Your task to perform on an android device: delete browsing data in the chrome app Image 0: 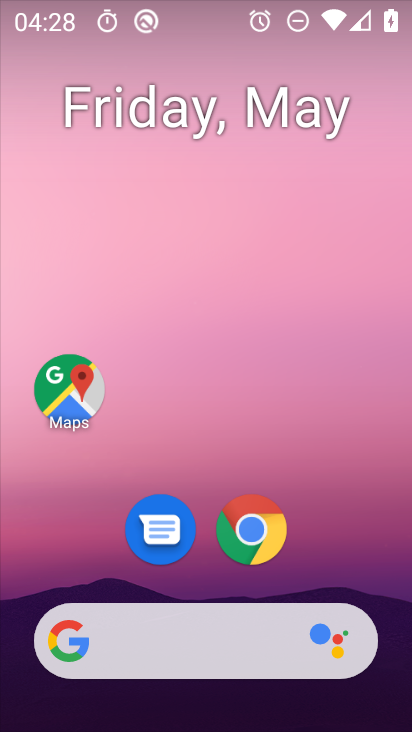
Step 0: click (242, 528)
Your task to perform on an android device: delete browsing data in the chrome app Image 1: 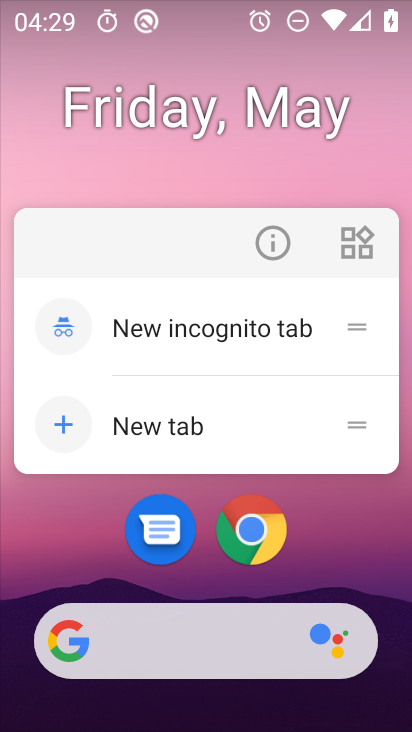
Step 1: click (257, 525)
Your task to perform on an android device: delete browsing data in the chrome app Image 2: 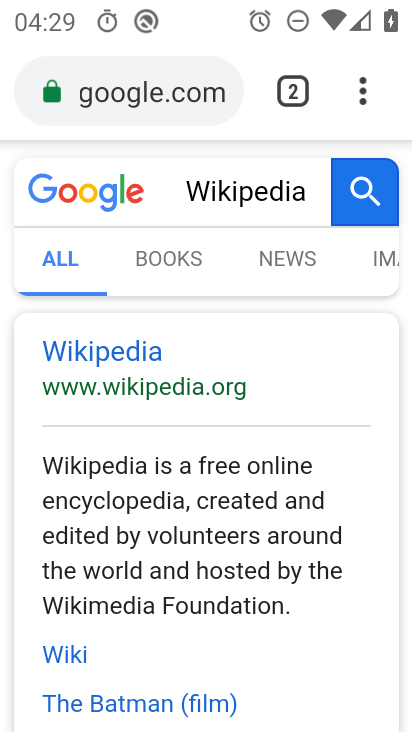
Step 2: click (364, 85)
Your task to perform on an android device: delete browsing data in the chrome app Image 3: 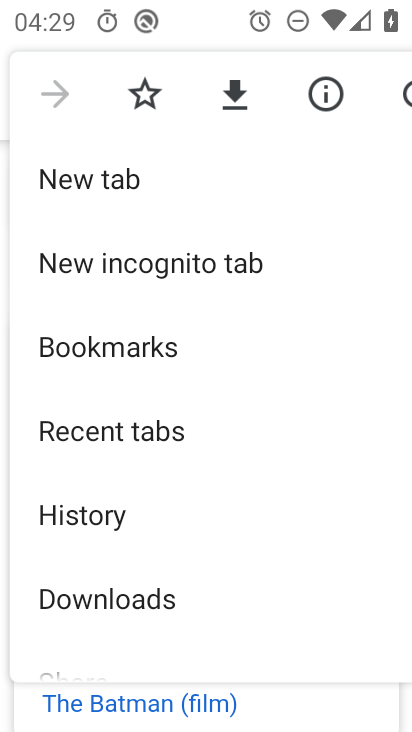
Step 3: drag from (254, 602) to (267, 367)
Your task to perform on an android device: delete browsing data in the chrome app Image 4: 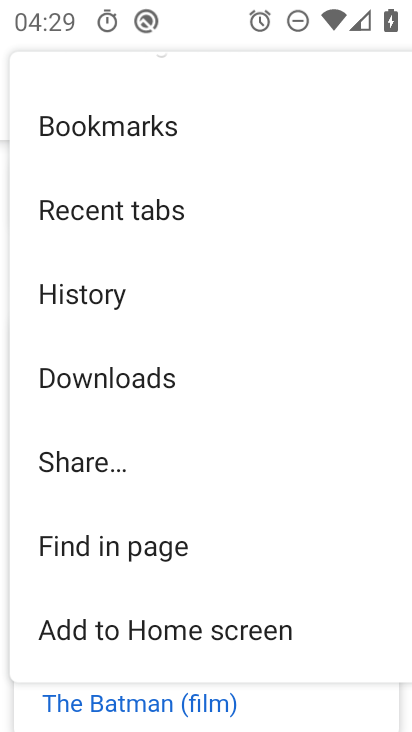
Step 4: click (83, 289)
Your task to perform on an android device: delete browsing data in the chrome app Image 5: 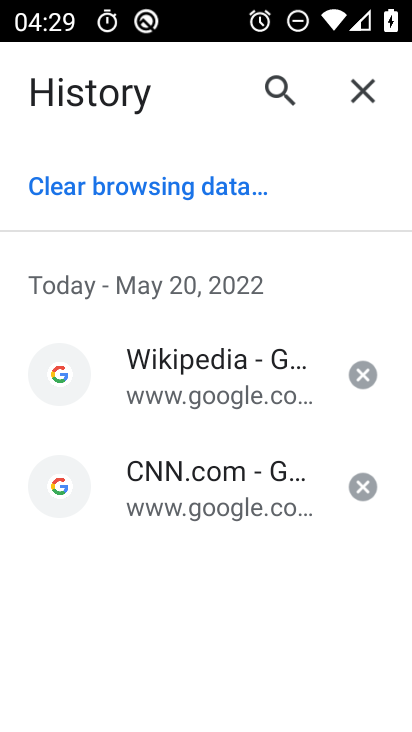
Step 5: click (172, 179)
Your task to perform on an android device: delete browsing data in the chrome app Image 6: 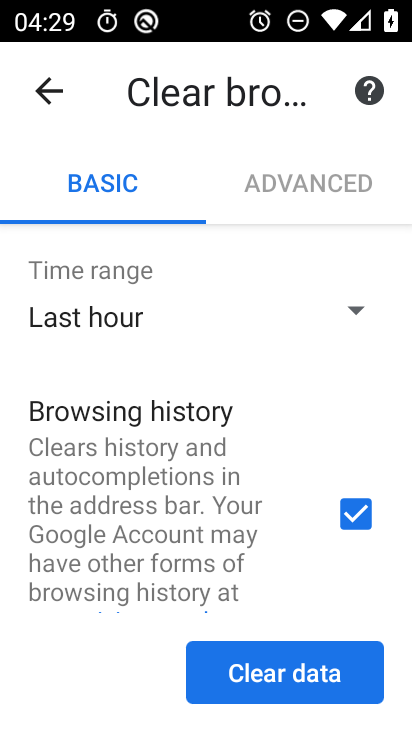
Step 6: click (276, 672)
Your task to perform on an android device: delete browsing data in the chrome app Image 7: 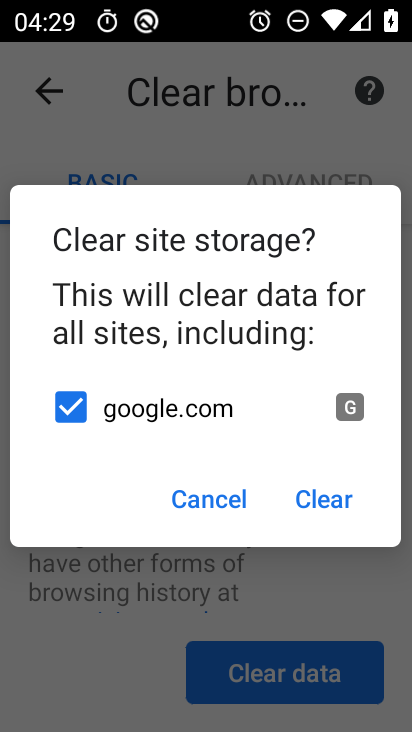
Step 7: click (327, 491)
Your task to perform on an android device: delete browsing data in the chrome app Image 8: 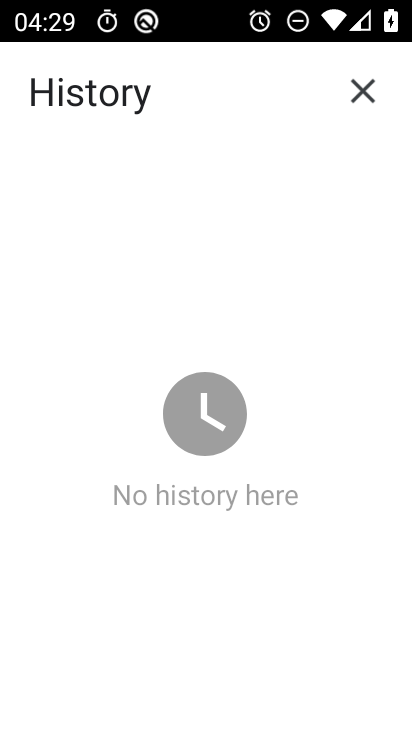
Step 8: task complete